Your task to perform on an android device: Set the phone to "Do not disturb". Image 0: 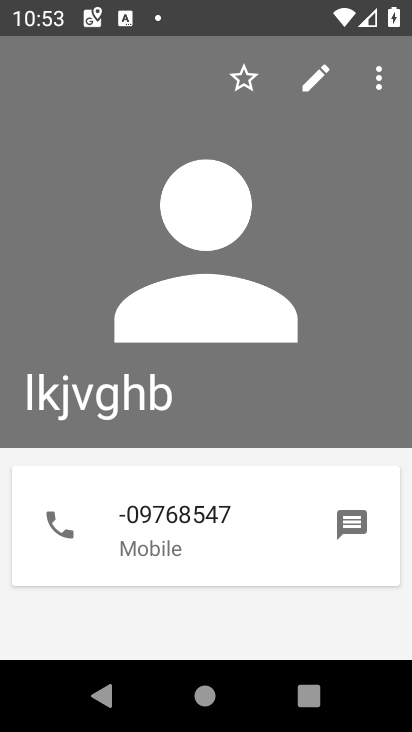
Step 0: press home button
Your task to perform on an android device: Set the phone to "Do not disturb". Image 1: 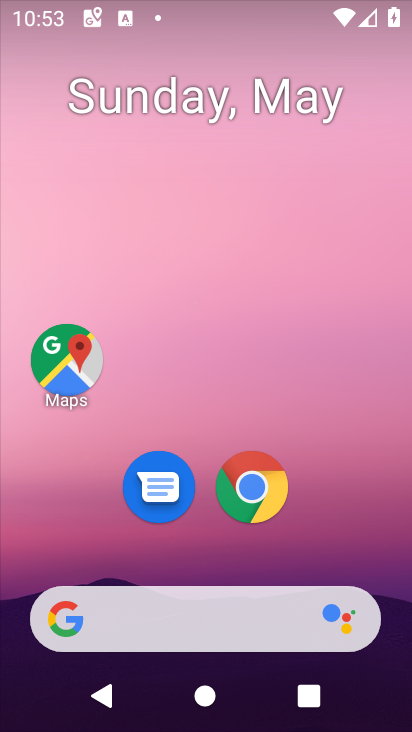
Step 1: drag from (172, 677) to (113, 108)
Your task to perform on an android device: Set the phone to "Do not disturb". Image 2: 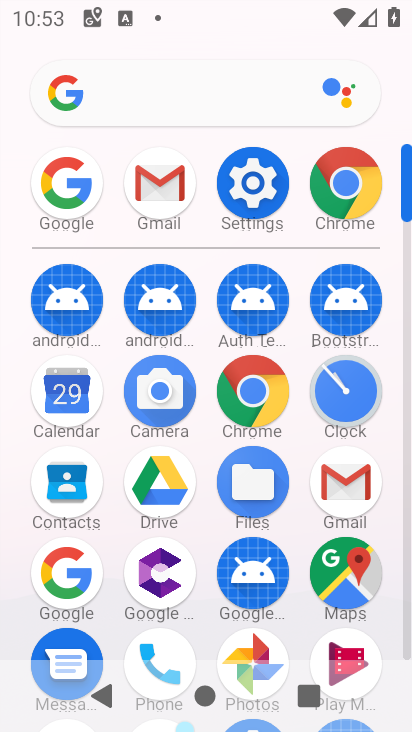
Step 2: drag from (187, 540) to (187, 222)
Your task to perform on an android device: Set the phone to "Do not disturb". Image 3: 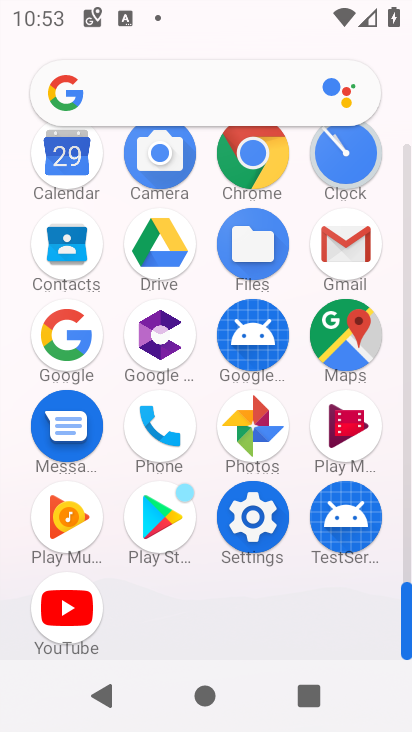
Step 3: drag from (209, 9) to (285, 376)
Your task to perform on an android device: Set the phone to "Do not disturb". Image 4: 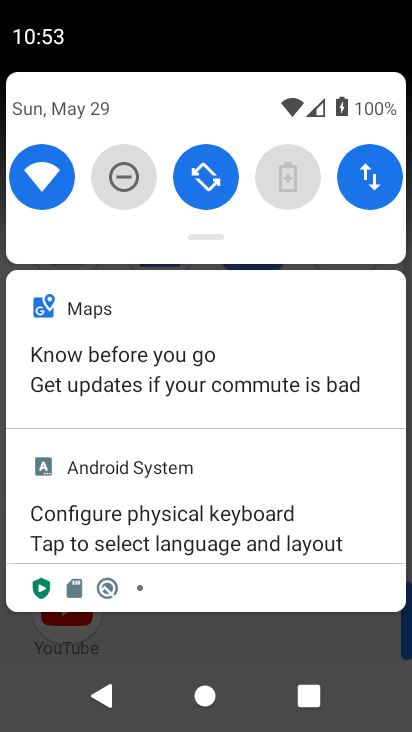
Step 4: click (120, 185)
Your task to perform on an android device: Set the phone to "Do not disturb". Image 5: 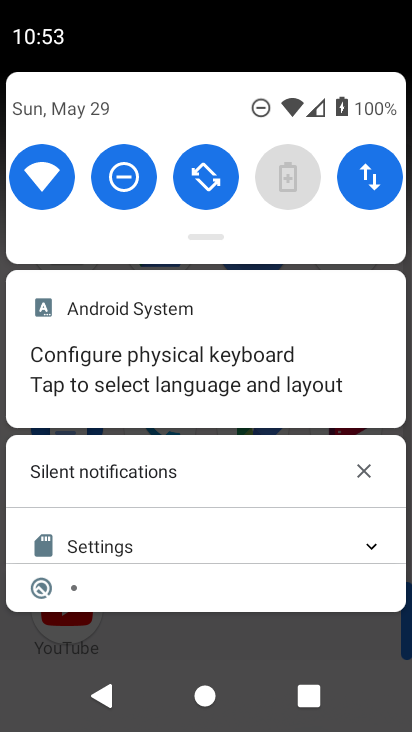
Step 5: task complete